Your task to perform on an android device: Look up "custom art" on Etsy Image 0: 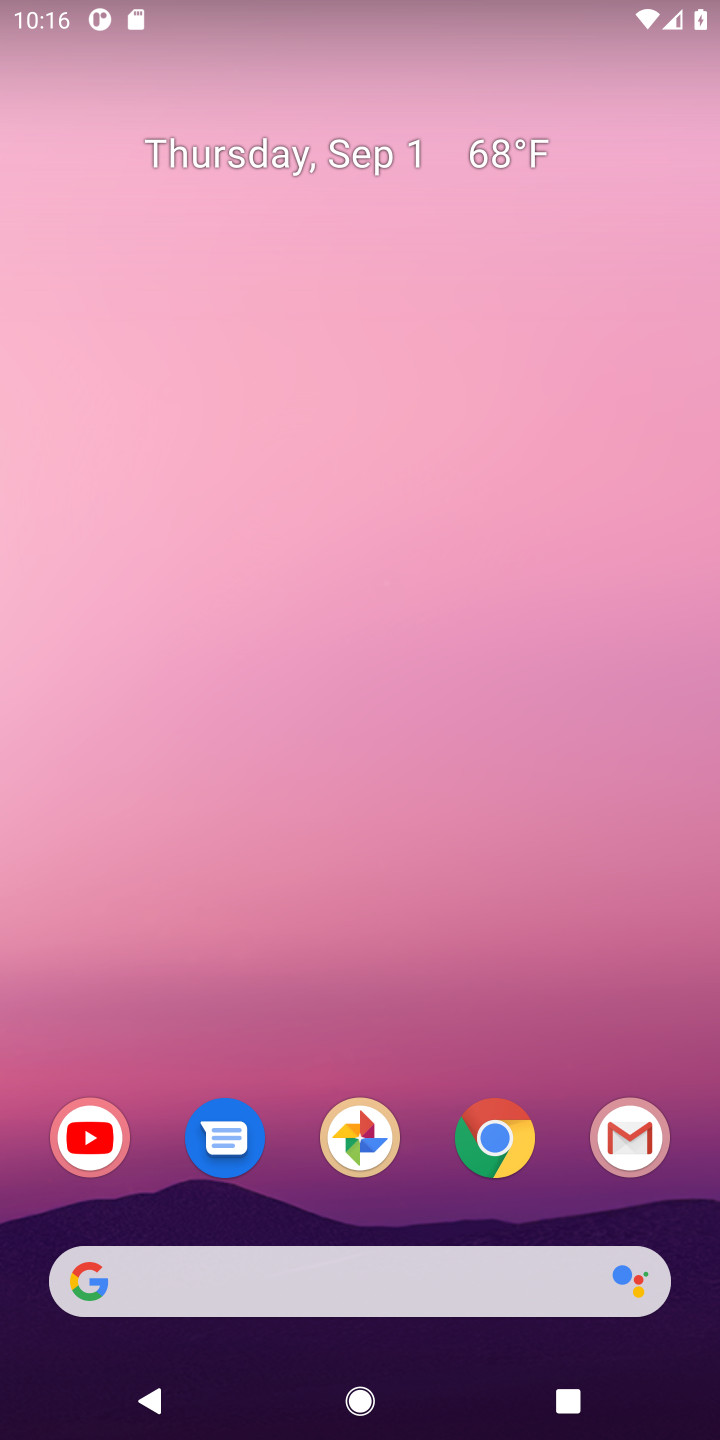
Step 0: click (337, 1279)
Your task to perform on an android device: Look up "custom art" on Etsy Image 1: 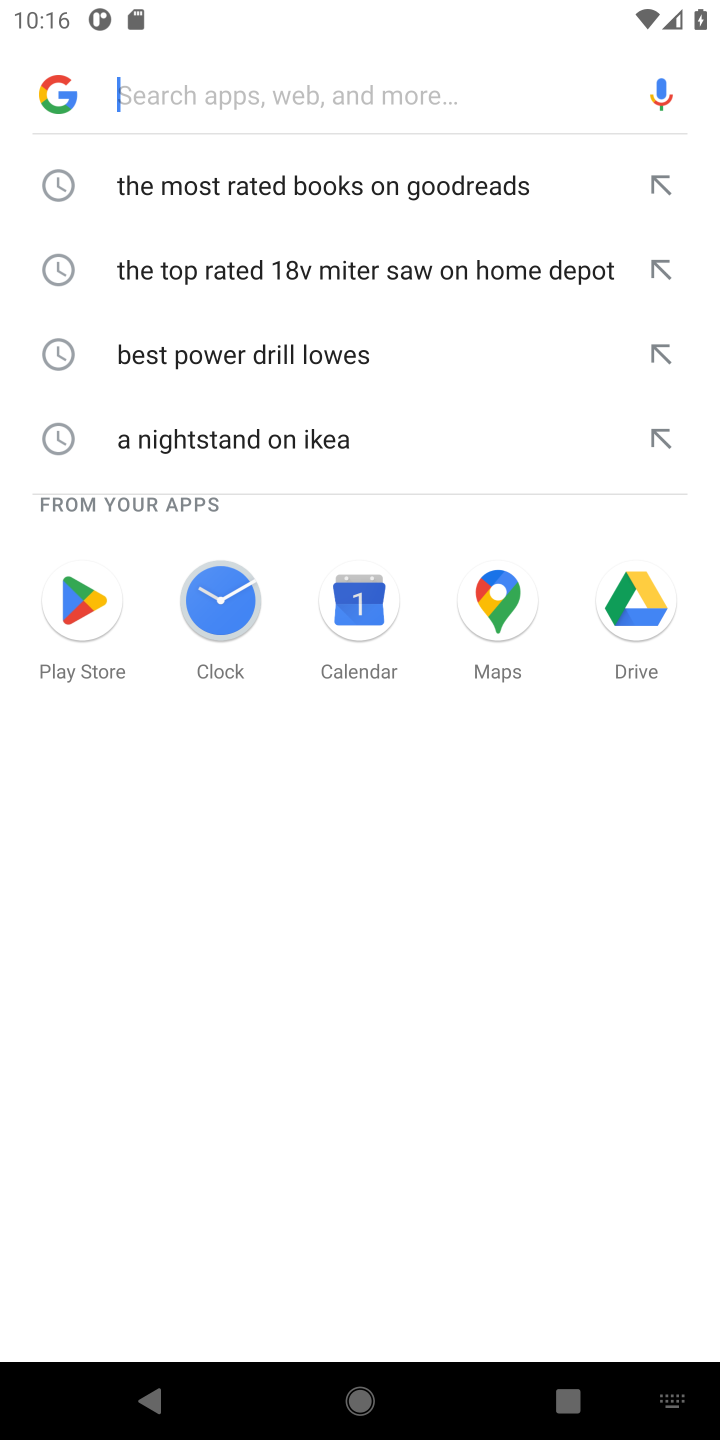
Step 1: type "custom art" on Etsy"
Your task to perform on an android device: Look up "custom art" on Etsy Image 2: 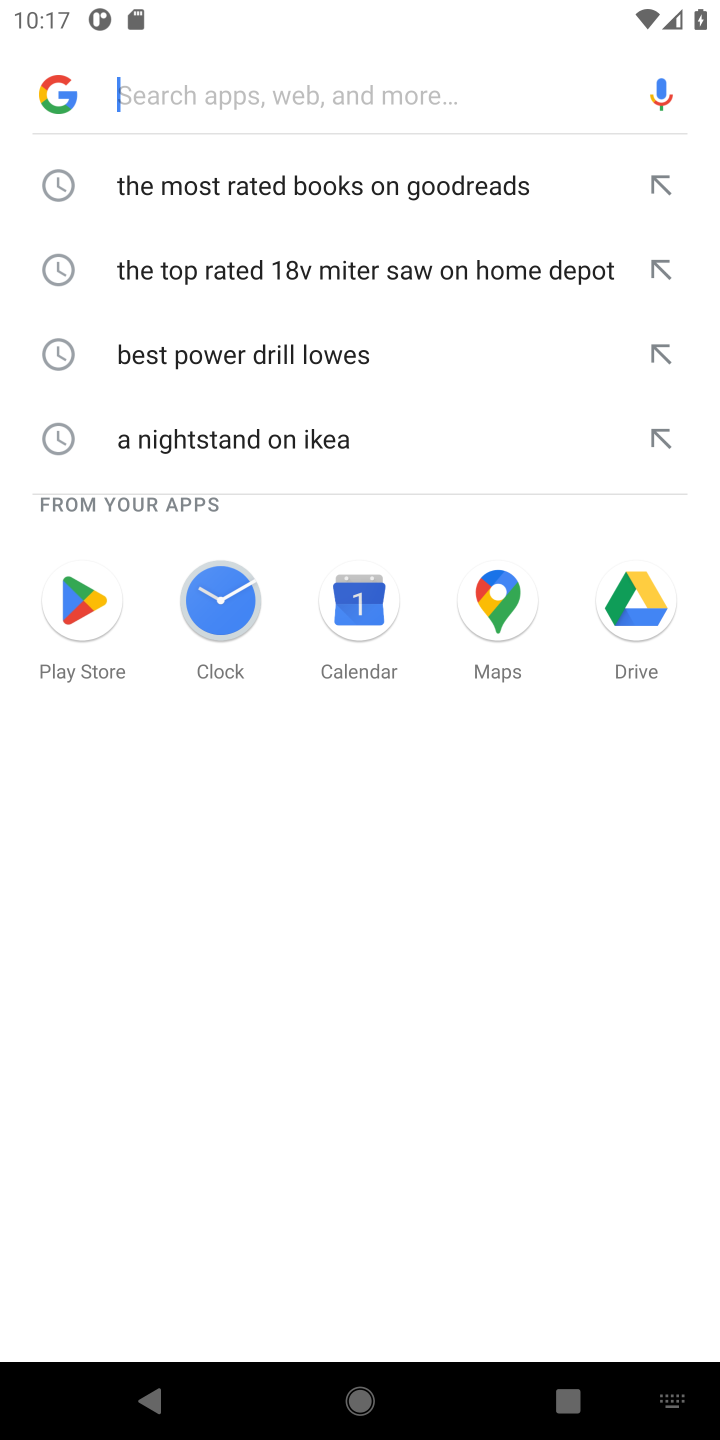
Step 2: type "custom art" on Etsy"
Your task to perform on an android device: Look up "custom art" on Etsy Image 3: 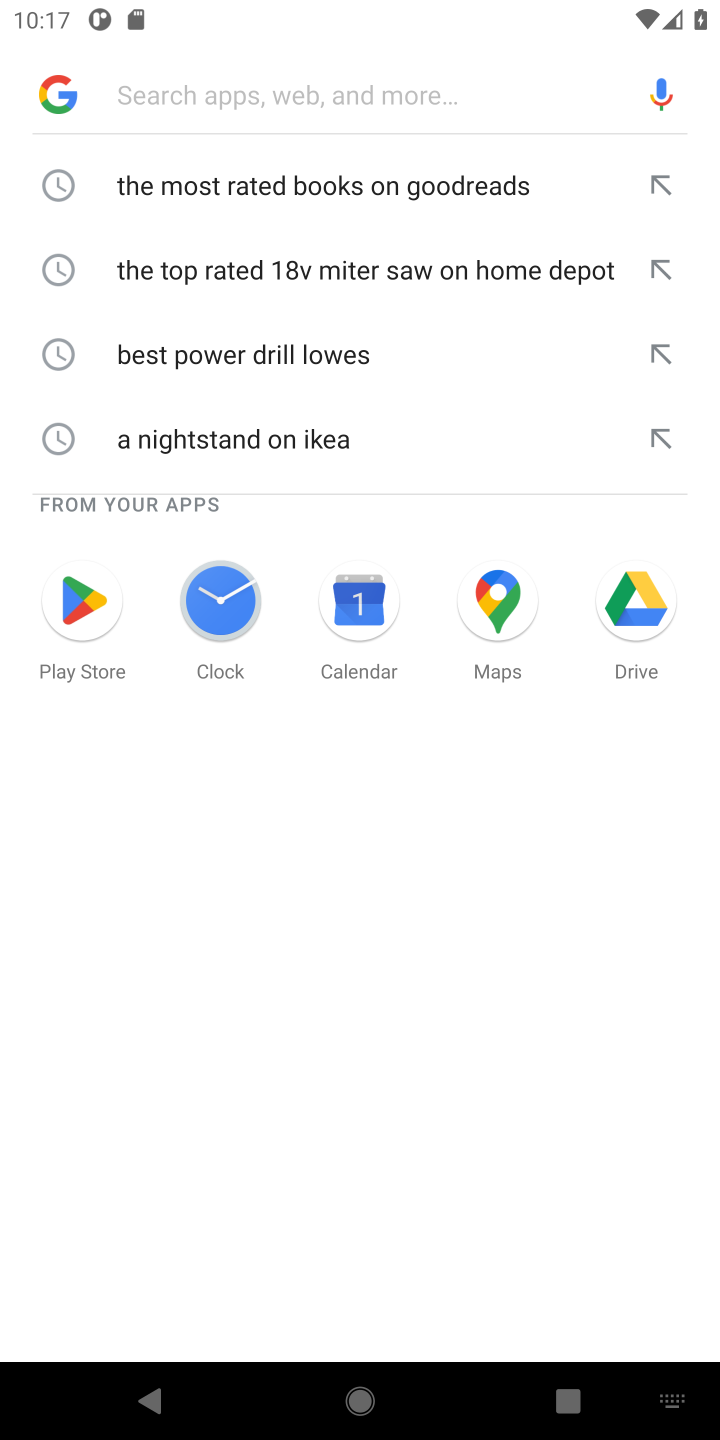
Step 3: click (225, 99)
Your task to perform on an android device: Look up "custom art" on Etsy Image 4: 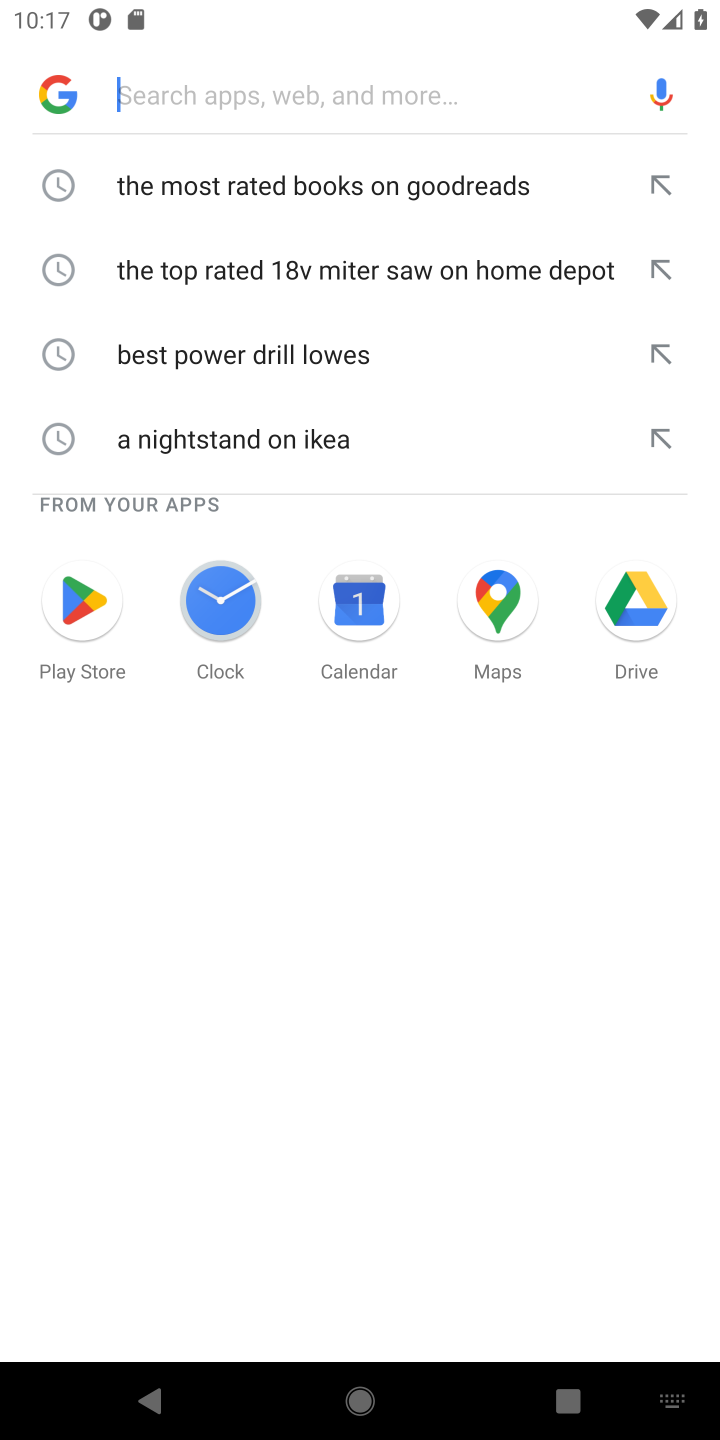
Step 4: type "custom art" on Etsy"
Your task to perform on an android device: Look up "custom art" on Etsy Image 5: 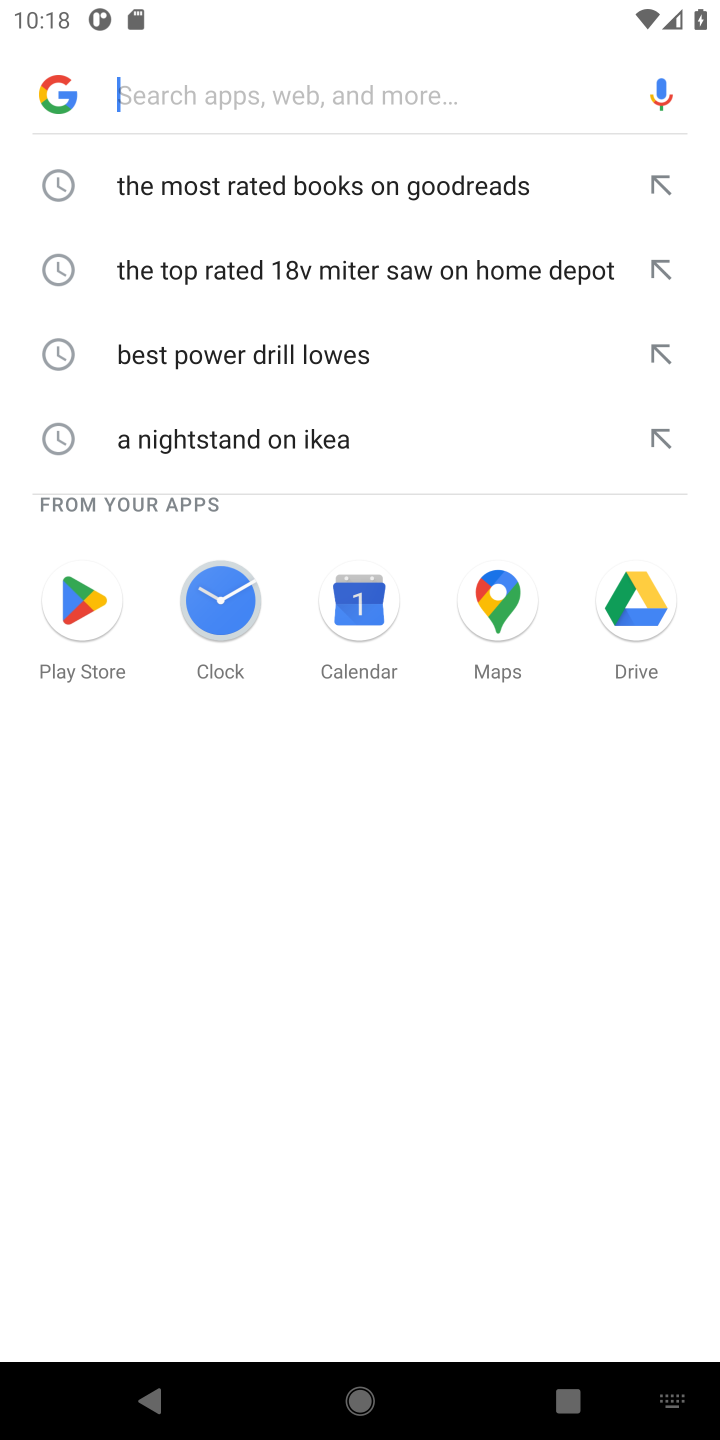
Step 5: press back button
Your task to perform on an android device: Look up "custom art" on Etsy Image 6: 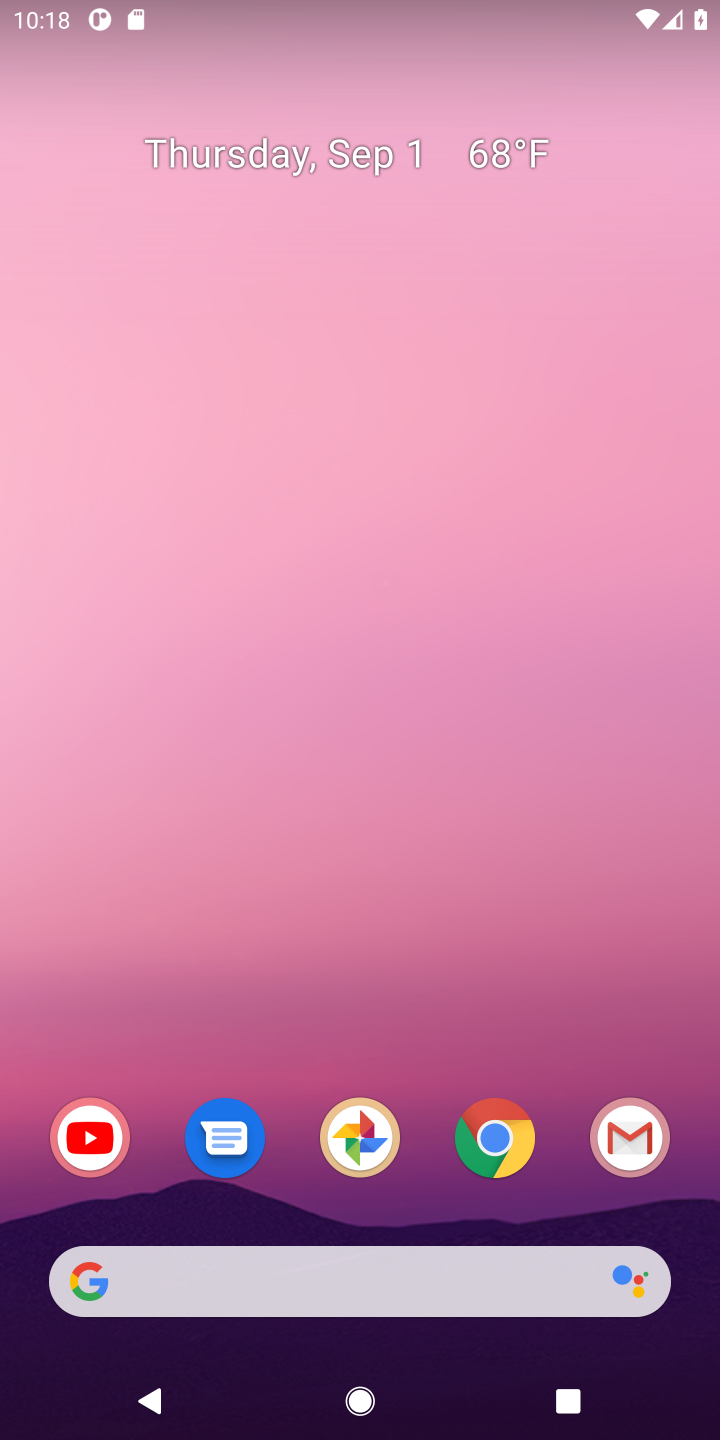
Step 6: click (335, 1280)
Your task to perform on an android device: Look up "custom art" on Etsy Image 7: 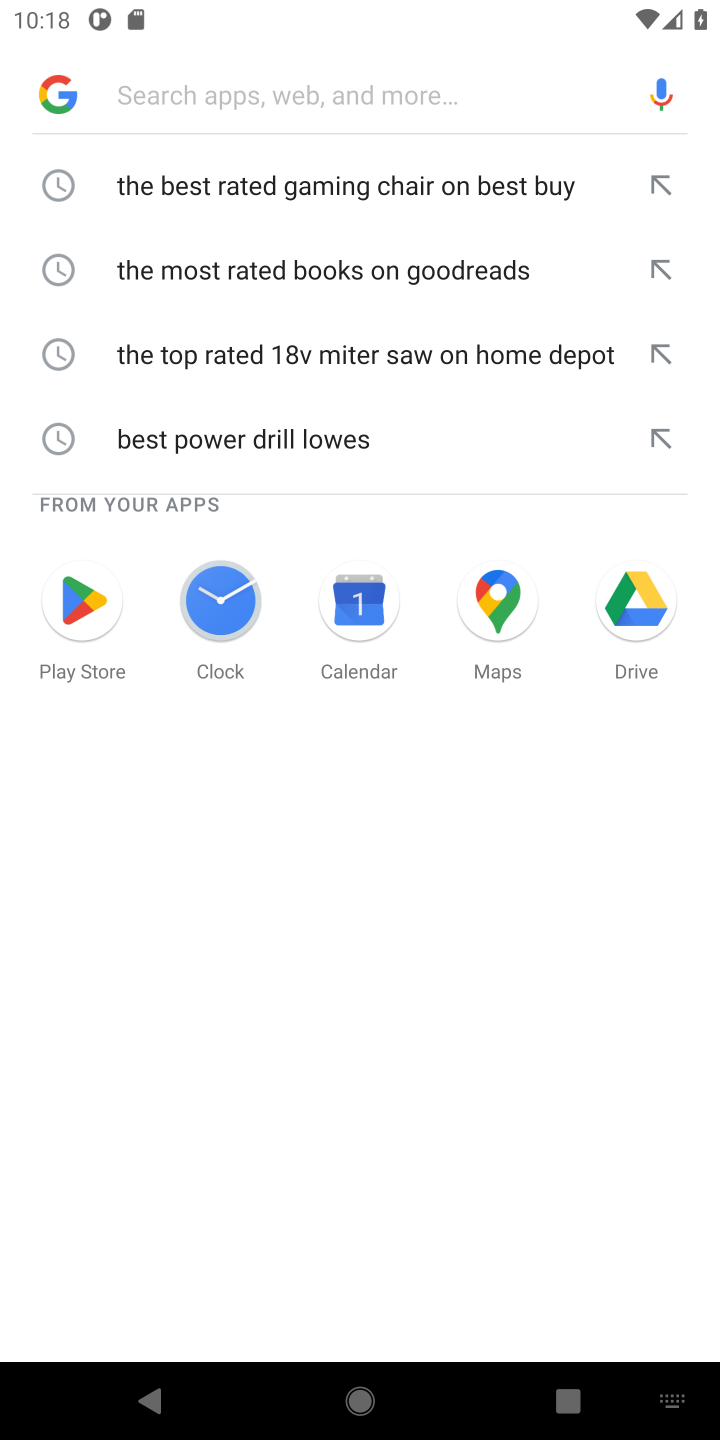
Step 7: type "custom art" on Etsy"
Your task to perform on an android device: Look up "custom art" on Etsy Image 8: 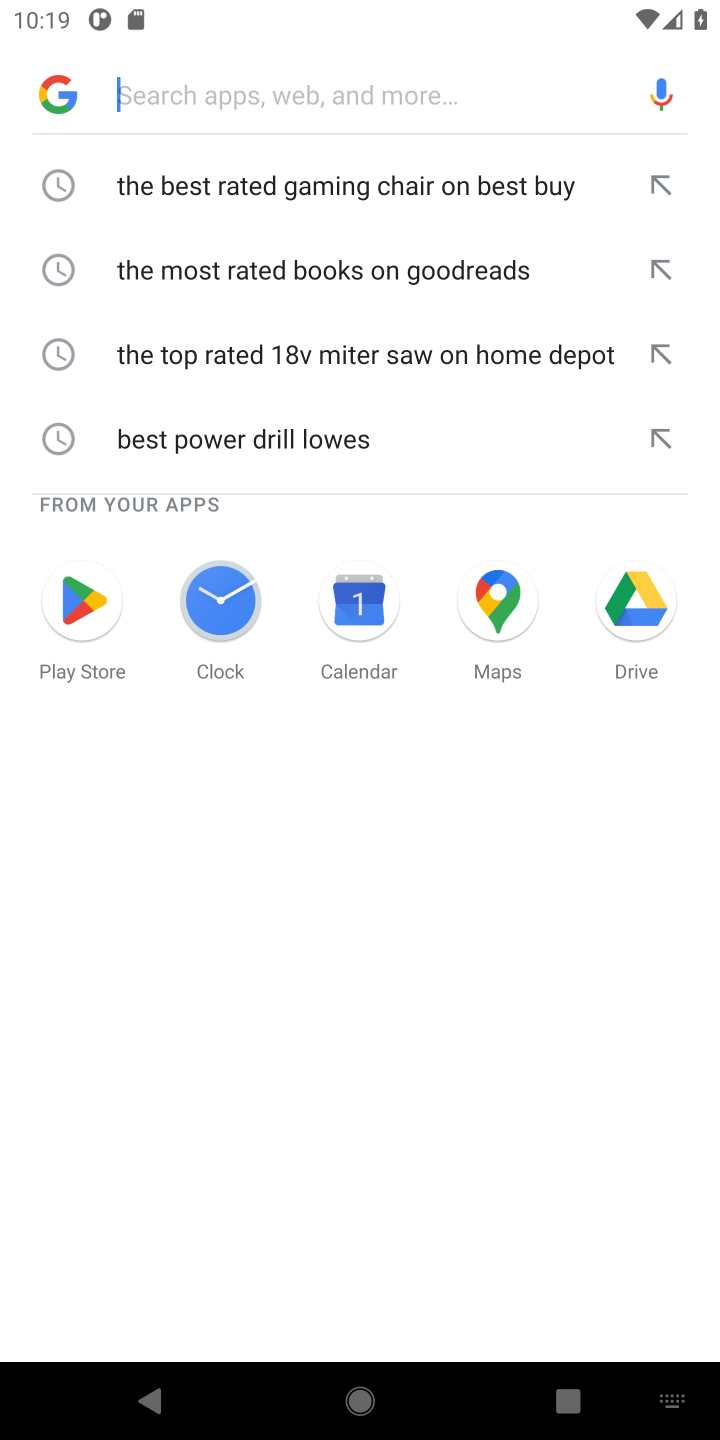
Step 8: press home button
Your task to perform on an android device: Look up "custom art" on Etsy Image 9: 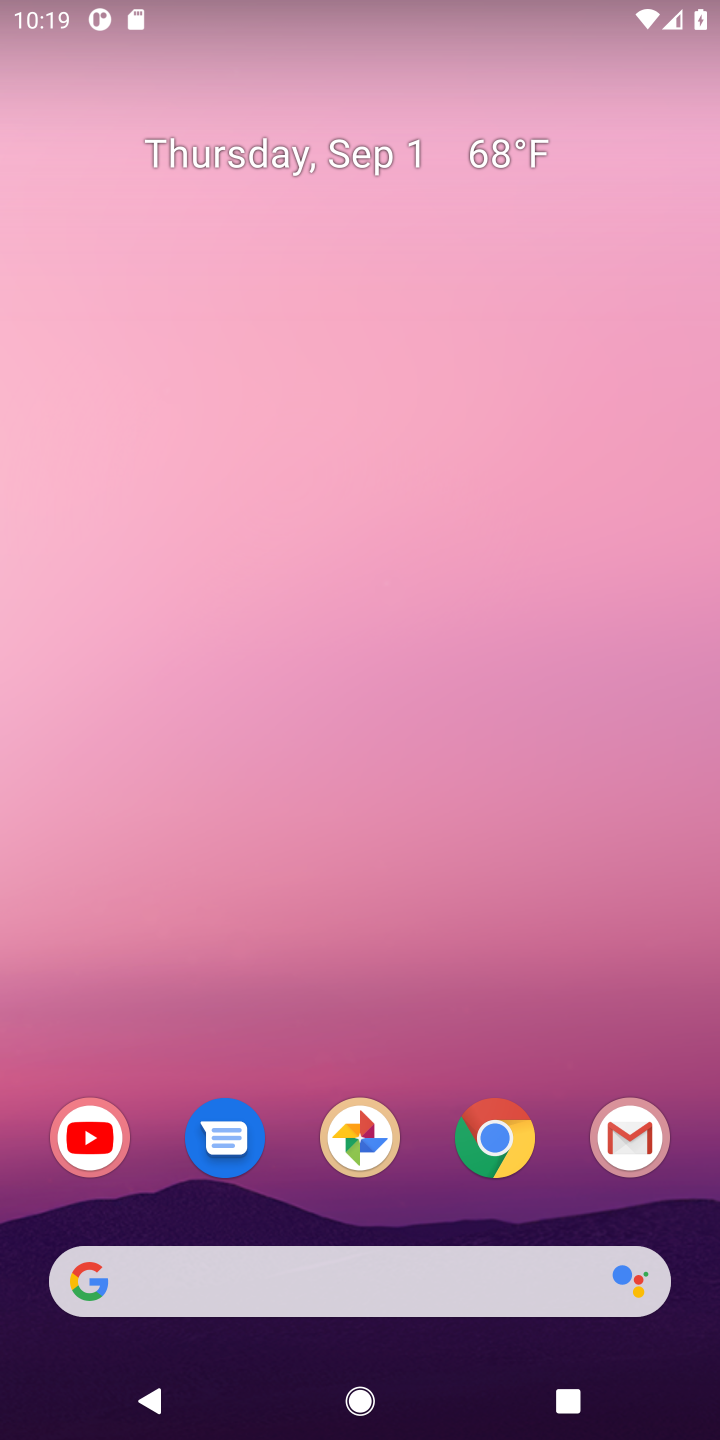
Step 9: click (472, 1168)
Your task to perform on an android device: Look up "custom art" on Etsy Image 10: 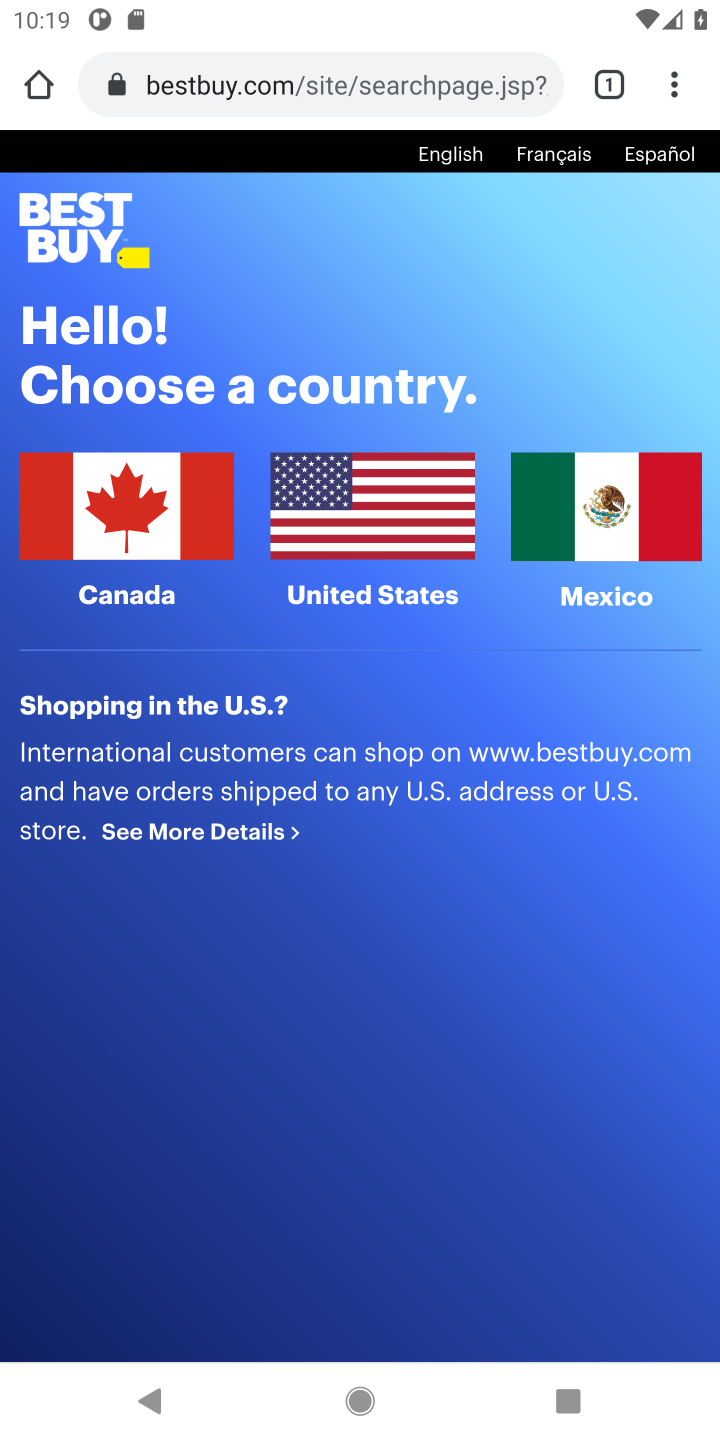
Step 10: click (361, 88)
Your task to perform on an android device: Look up "custom art" on Etsy Image 11: 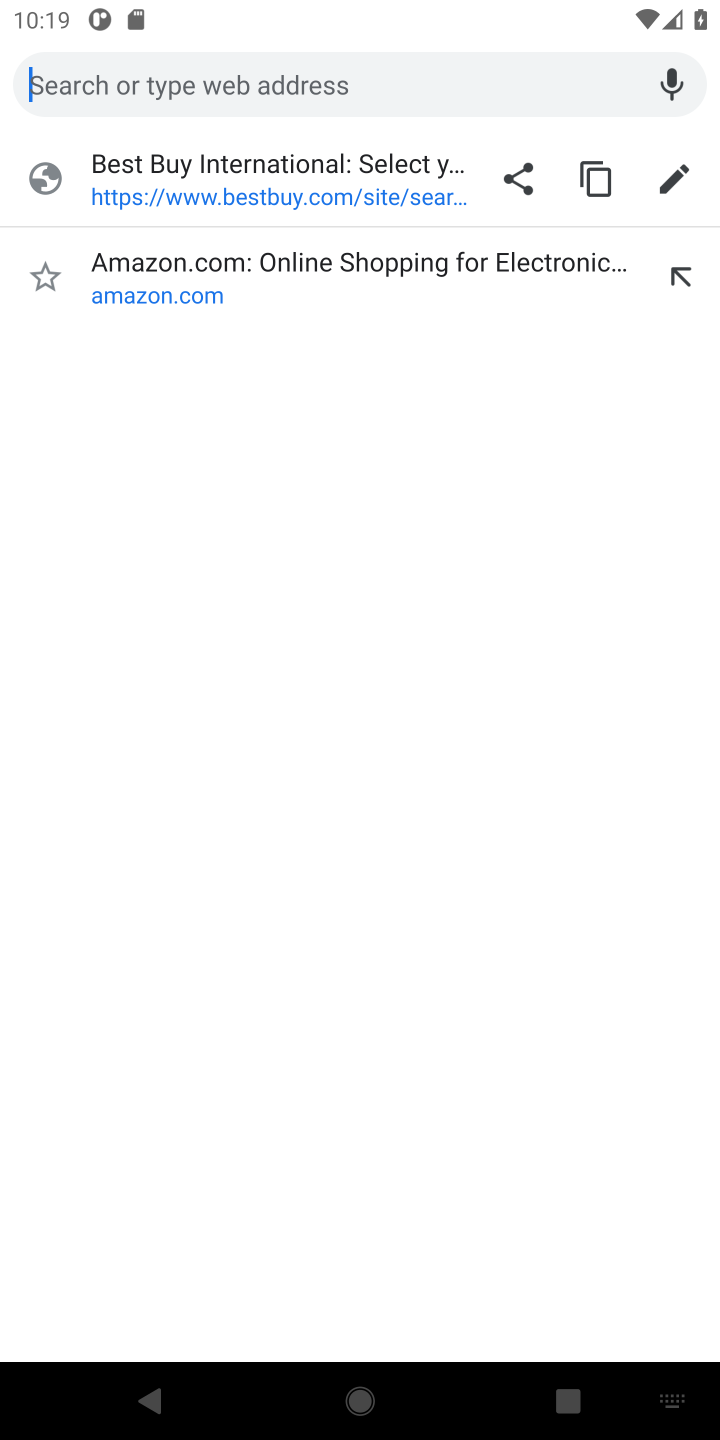
Step 11: type "custom art" on Etsy"
Your task to perform on an android device: Look up "custom art" on Etsy Image 12: 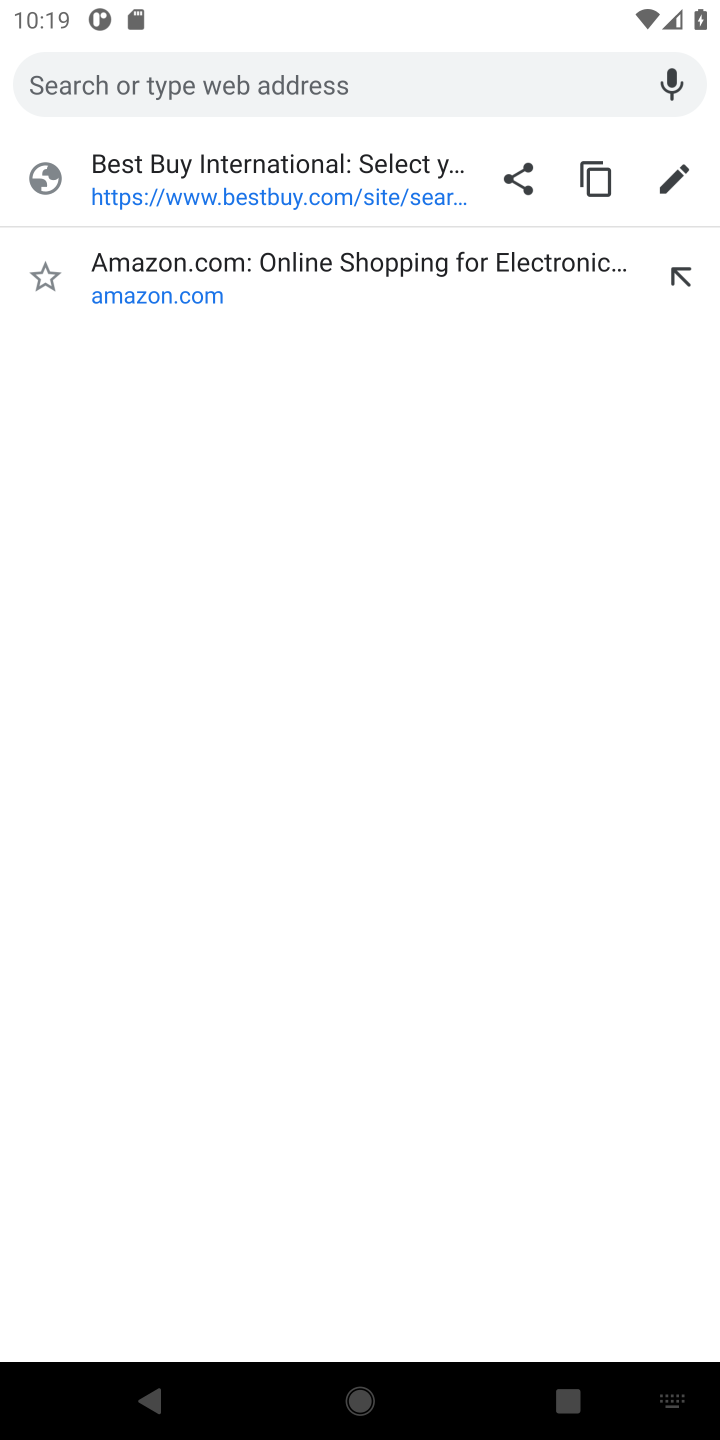
Step 12: task complete